Your task to perform on an android device: Open Google Chrome and click the shortcut for Amazon.com Image 0: 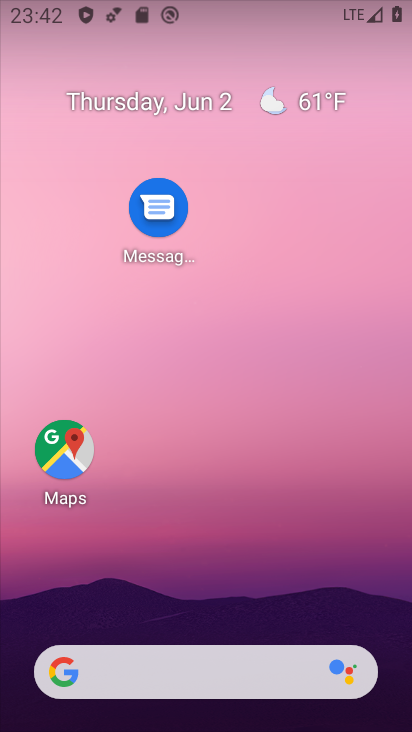
Step 0: drag from (193, 635) to (190, 9)
Your task to perform on an android device: Open Google Chrome and click the shortcut for Amazon.com Image 1: 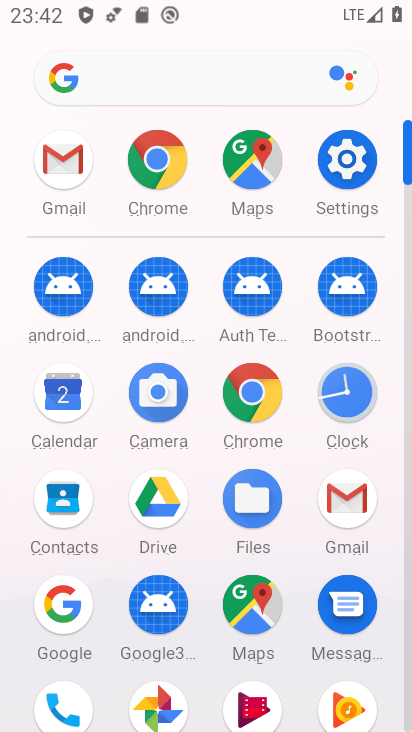
Step 1: click (244, 417)
Your task to perform on an android device: Open Google Chrome and click the shortcut for Amazon.com Image 2: 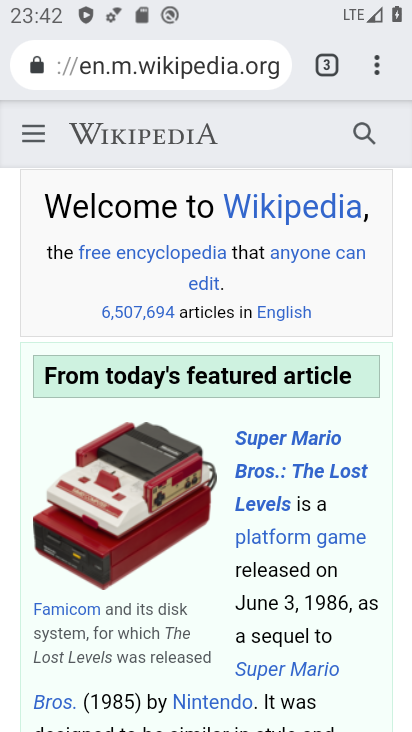
Step 2: click (332, 55)
Your task to perform on an android device: Open Google Chrome and click the shortcut for Amazon.com Image 3: 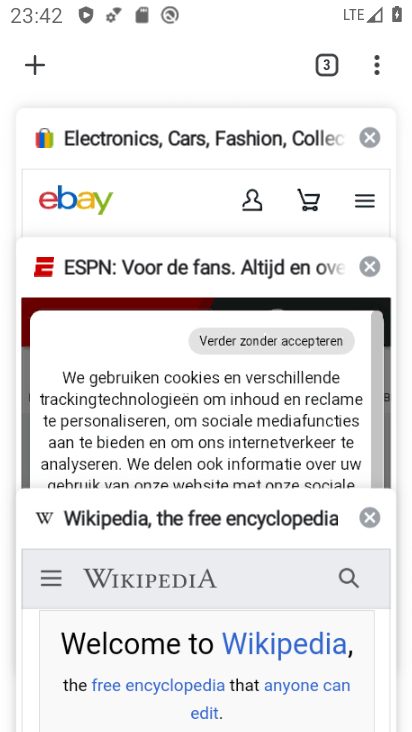
Step 3: click (38, 54)
Your task to perform on an android device: Open Google Chrome and click the shortcut for Amazon.com Image 4: 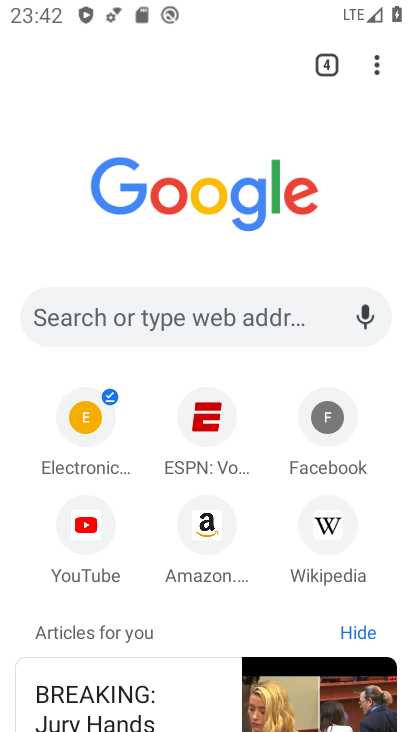
Step 4: click (209, 511)
Your task to perform on an android device: Open Google Chrome and click the shortcut for Amazon.com Image 5: 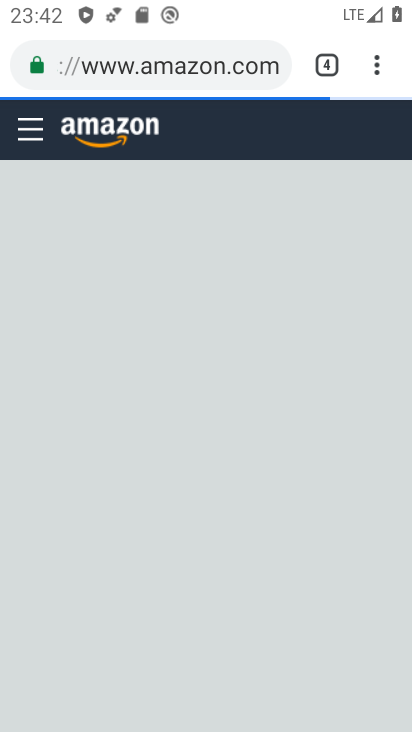
Step 5: task complete